Your task to perform on an android device: turn notification dots off Image 0: 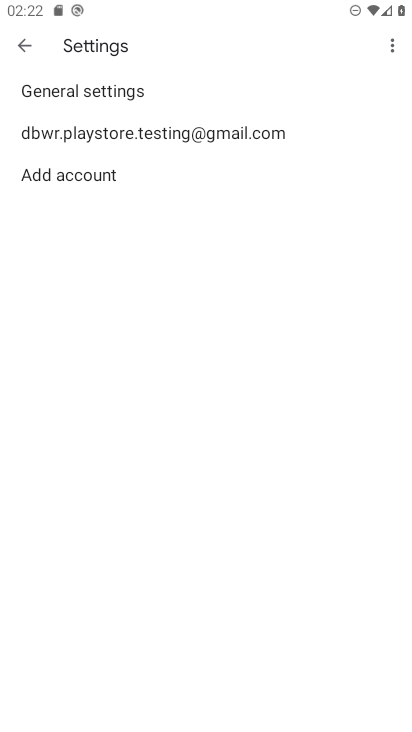
Step 0: press home button
Your task to perform on an android device: turn notification dots off Image 1: 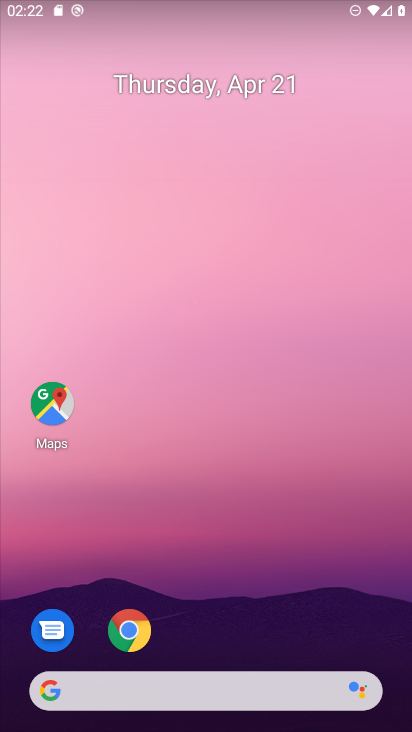
Step 1: drag from (226, 614) to (101, 66)
Your task to perform on an android device: turn notification dots off Image 2: 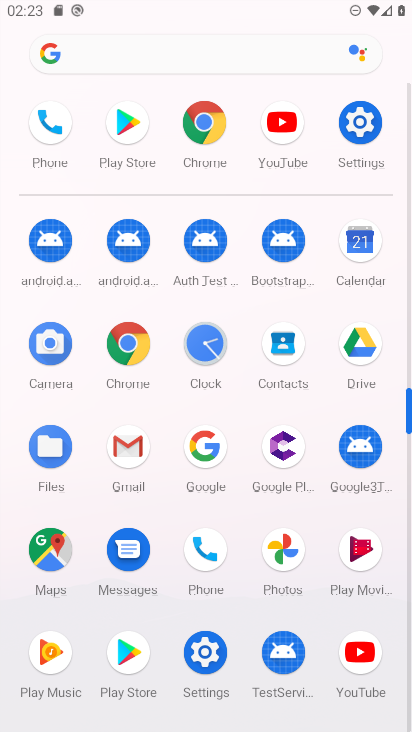
Step 2: click (355, 199)
Your task to perform on an android device: turn notification dots off Image 3: 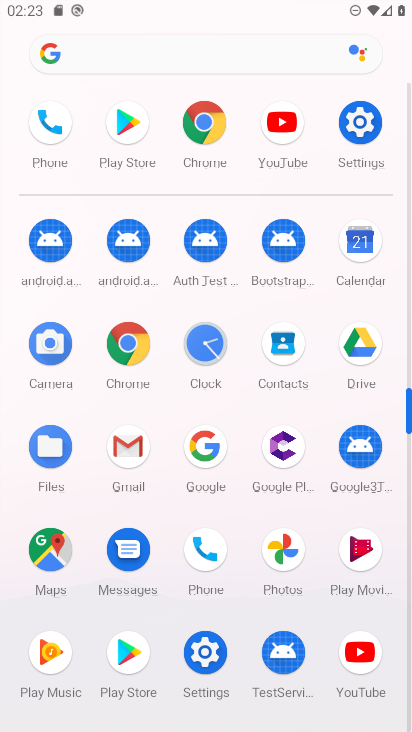
Step 3: click (358, 150)
Your task to perform on an android device: turn notification dots off Image 4: 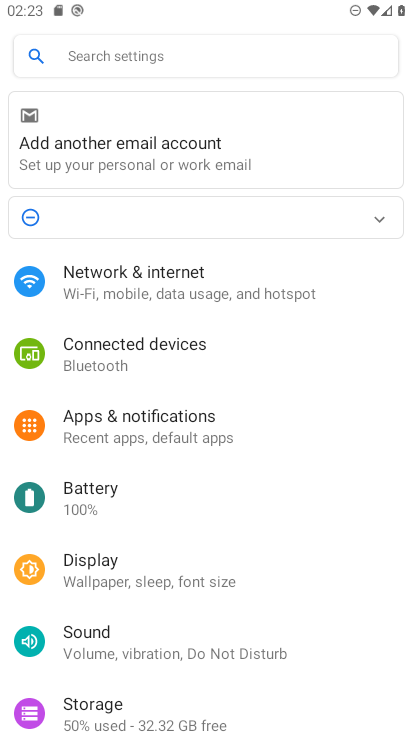
Step 4: click (212, 433)
Your task to perform on an android device: turn notification dots off Image 5: 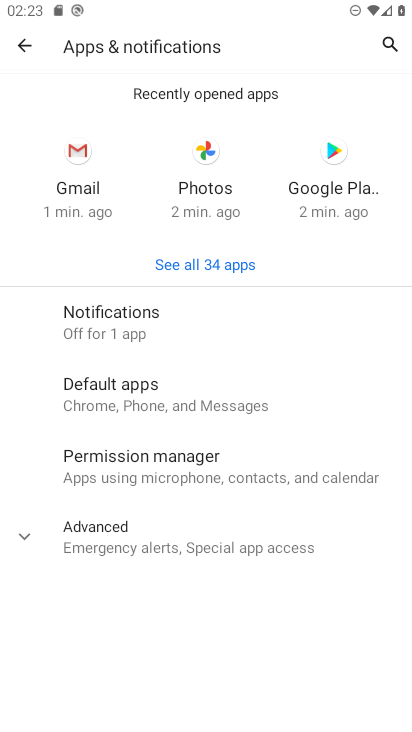
Step 5: click (142, 338)
Your task to perform on an android device: turn notification dots off Image 6: 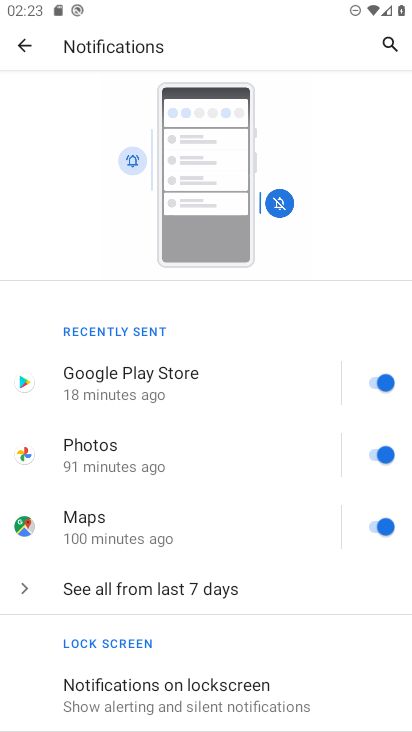
Step 6: drag from (184, 632) to (250, 272)
Your task to perform on an android device: turn notification dots off Image 7: 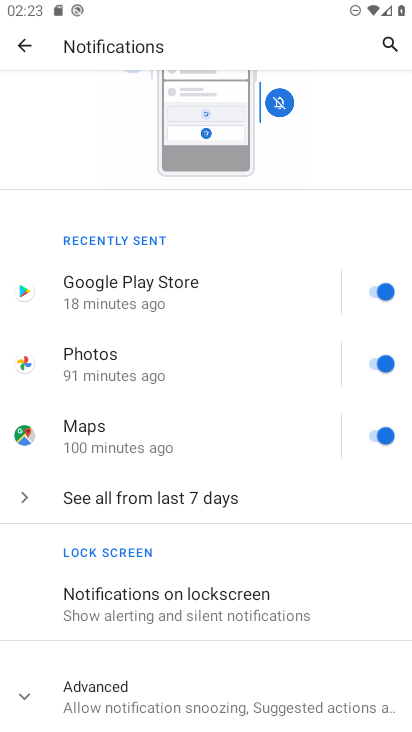
Step 7: click (193, 676)
Your task to perform on an android device: turn notification dots off Image 8: 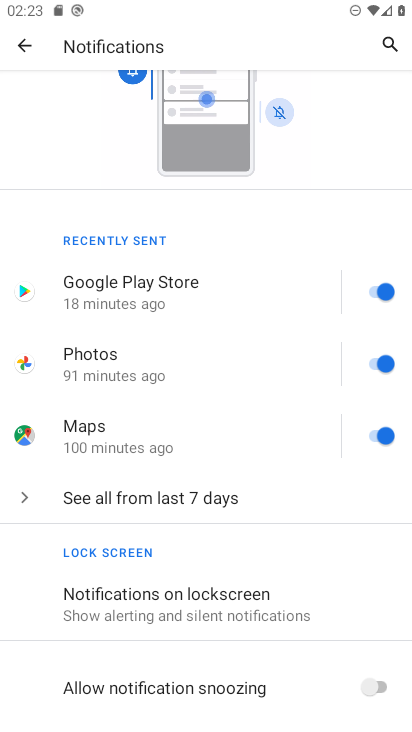
Step 8: drag from (193, 676) to (247, 530)
Your task to perform on an android device: turn notification dots off Image 9: 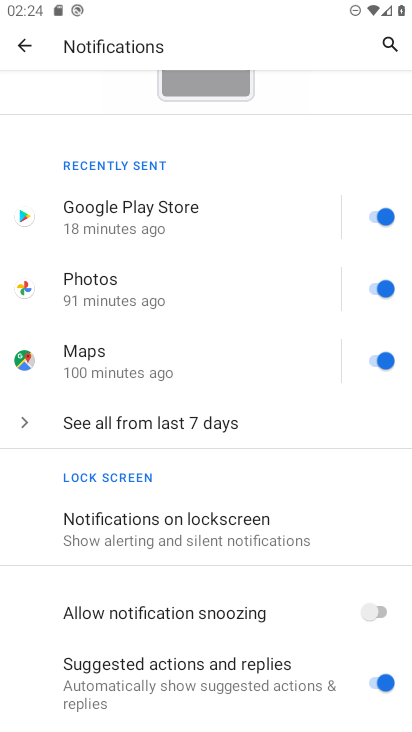
Step 9: drag from (194, 683) to (207, 352)
Your task to perform on an android device: turn notification dots off Image 10: 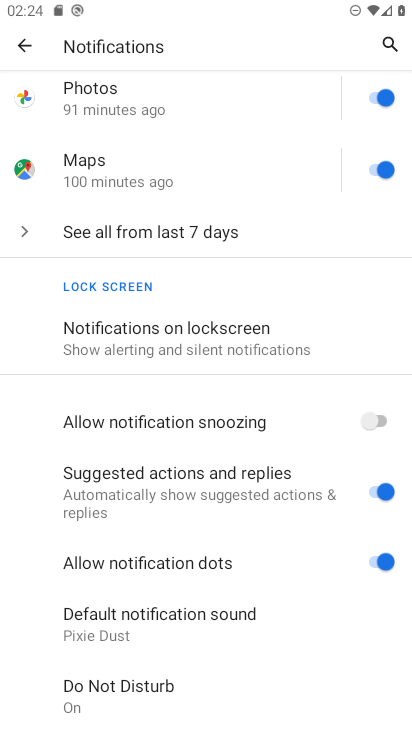
Step 10: click (354, 550)
Your task to perform on an android device: turn notification dots off Image 11: 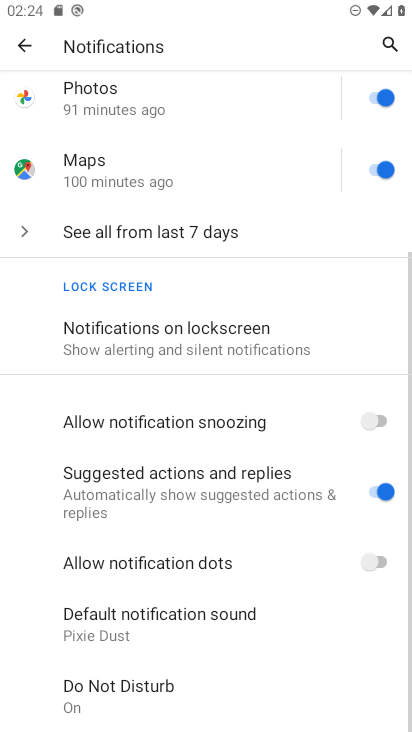
Step 11: task complete